Your task to perform on an android device: Empty the shopping cart on walmart. Add bose soundlink mini to the cart on walmart Image 0: 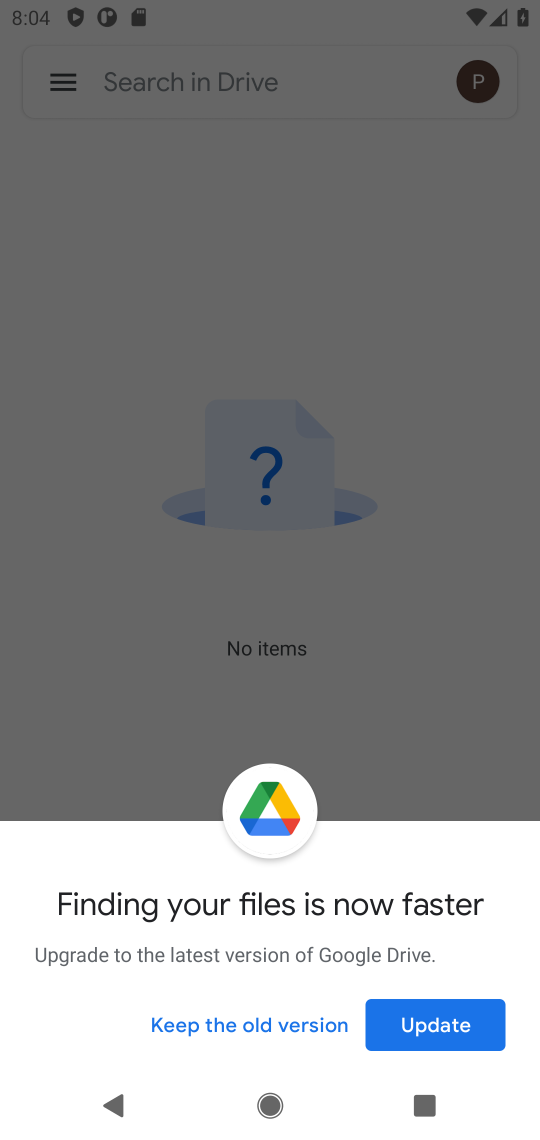
Step 0: press home button
Your task to perform on an android device: Empty the shopping cart on walmart. Add bose soundlink mini to the cart on walmart Image 1: 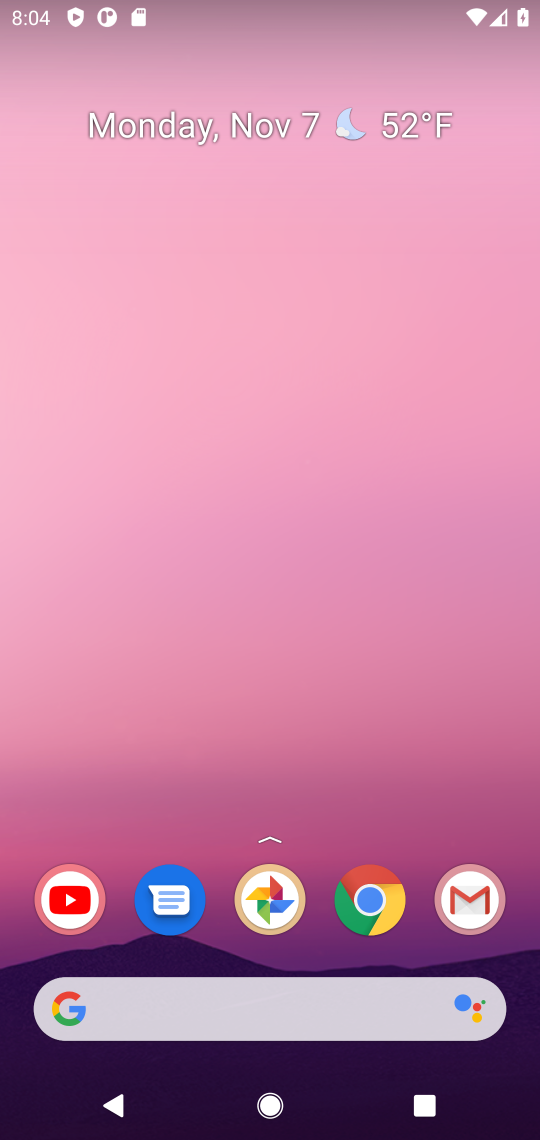
Step 1: click (367, 1029)
Your task to perform on an android device: Empty the shopping cart on walmart. Add bose soundlink mini to the cart on walmart Image 2: 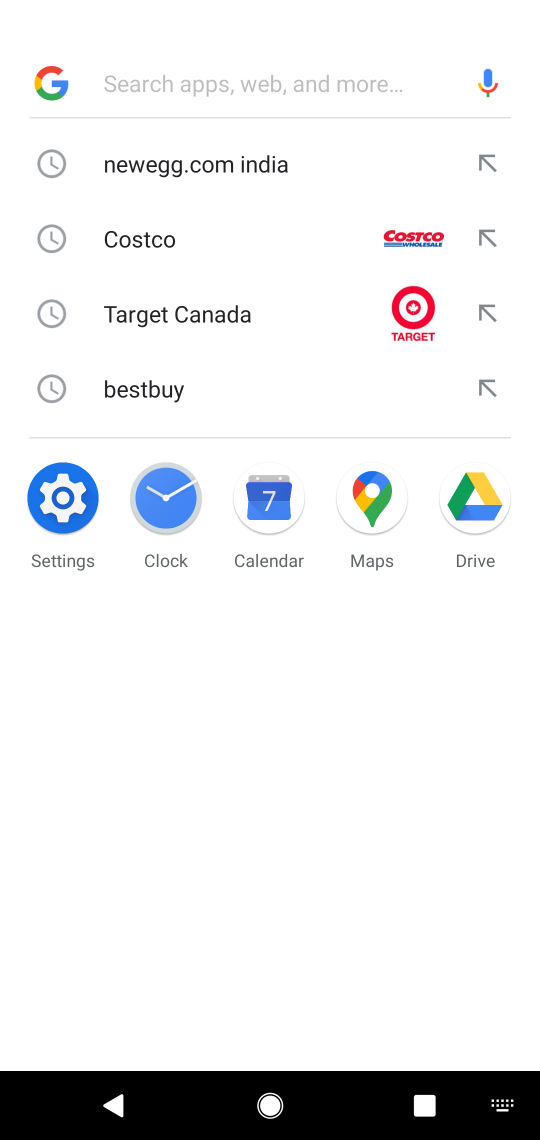
Step 2: type "walmart"
Your task to perform on an android device: Empty the shopping cart on walmart. Add bose soundlink mini to the cart on walmart Image 3: 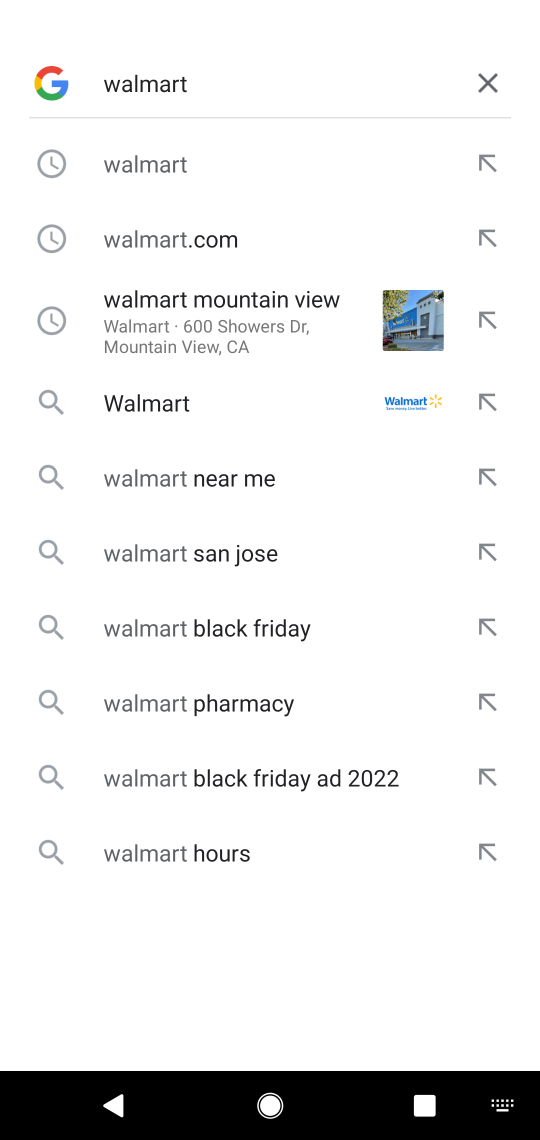
Step 3: click (153, 227)
Your task to perform on an android device: Empty the shopping cart on walmart. Add bose soundlink mini to the cart on walmart Image 4: 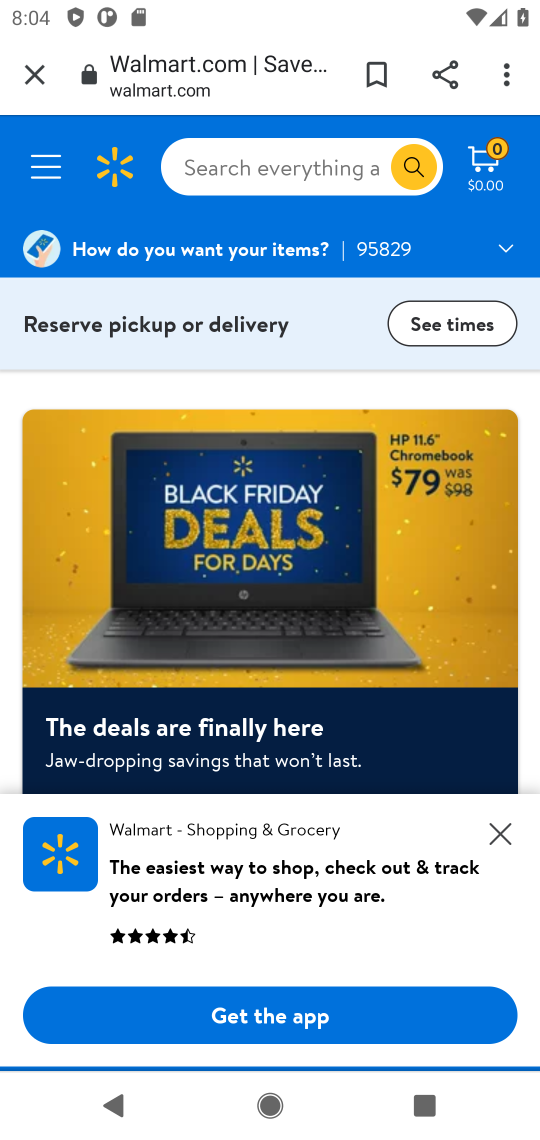
Step 4: click (240, 157)
Your task to perform on an android device: Empty the shopping cart on walmart. Add bose soundlink mini to the cart on walmart Image 5: 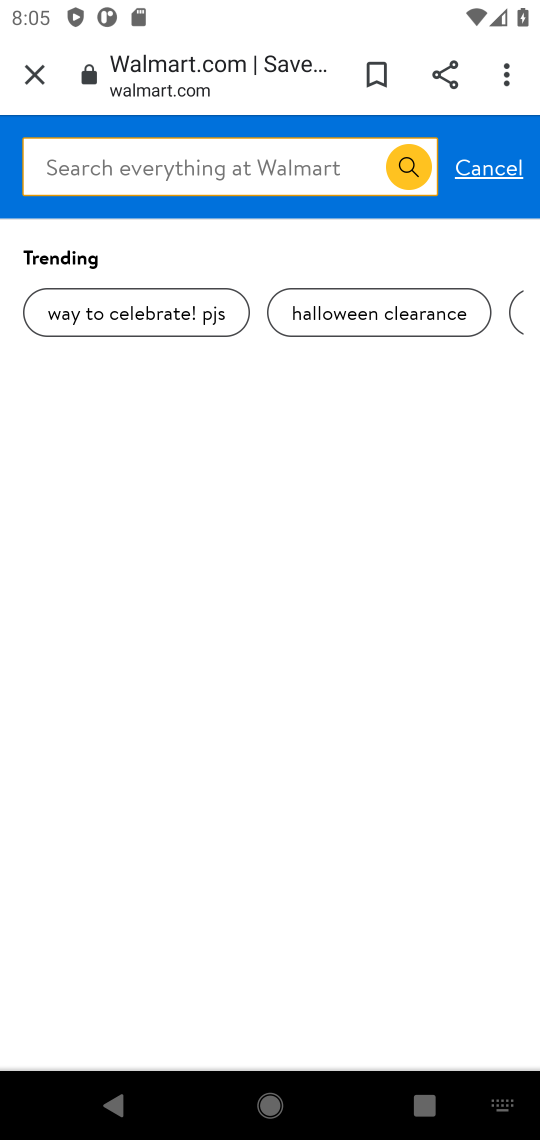
Step 5: type "bose soundlink"
Your task to perform on an android device: Empty the shopping cart on walmart. Add bose soundlink mini to the cart on walmart Image 6: 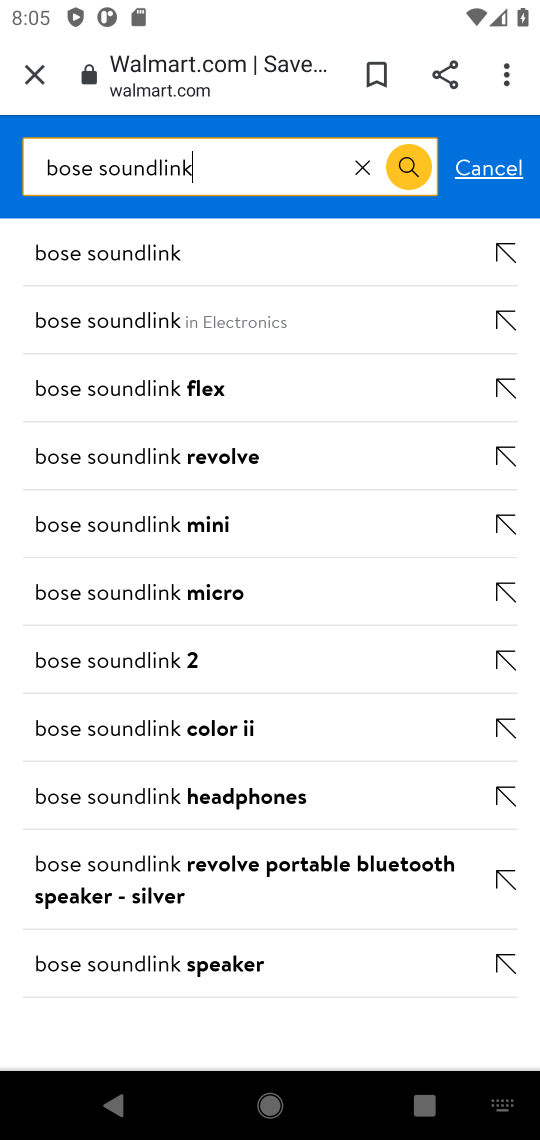
Step 6: click (495, 254)
Your task to perform on an android device: Empty the shopping cart on walmart. Add bose soundlink mini to the cart on walmart Image 7: 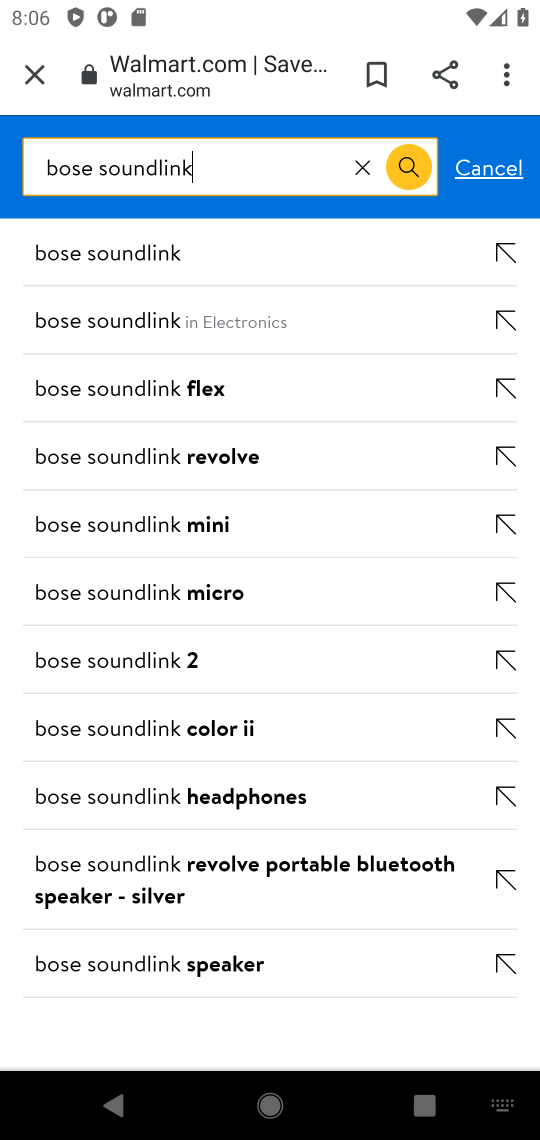
Step 7: click (398, 160)
Your task to perform on an android device: Empty the shopping cart on walmart. Add bose soundlink mini to the cart on walmart Image 8: 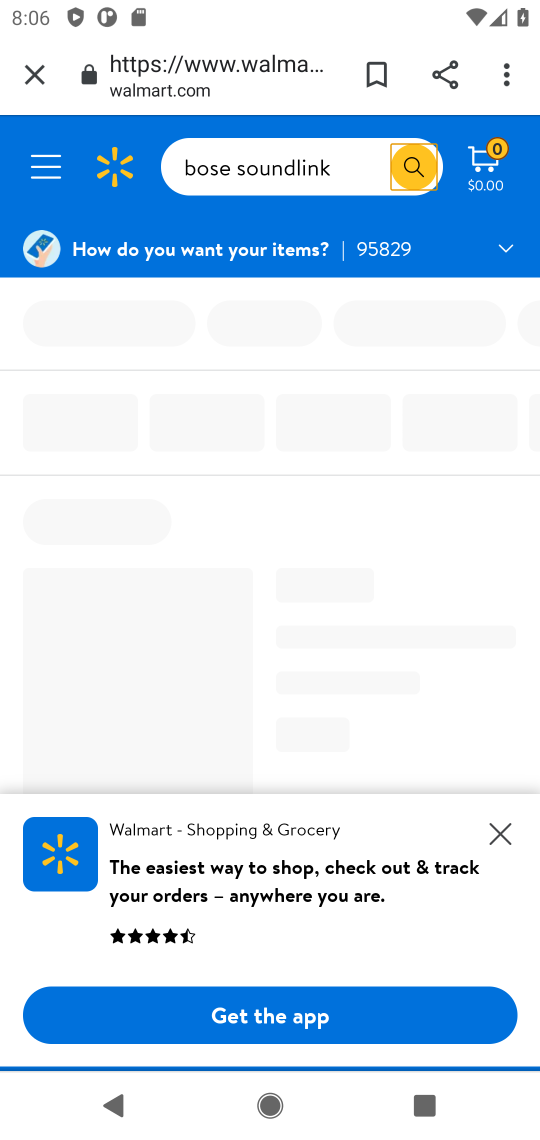
Step 8: task complete